Your task to perform on an android device: open device folders in google photos Image 0: 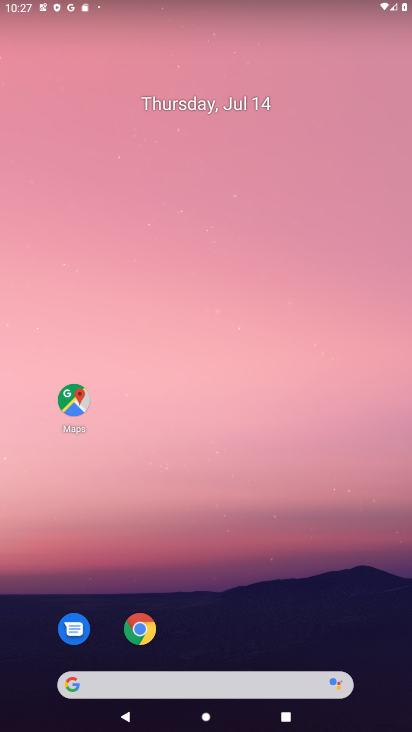
Step 0: drag from (33, 640) to (251, 127)
Your task to perform on an android device: open device folders in google photos Image 1: 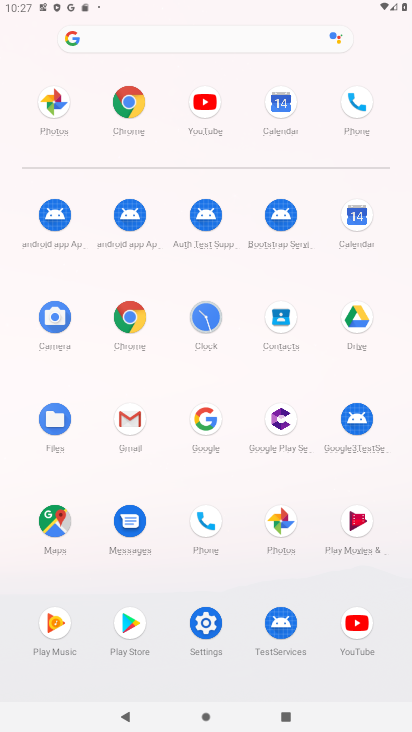
Step 1: click (277, 522)
Your task to perform on an android device: open device folders in google photos Image 2: 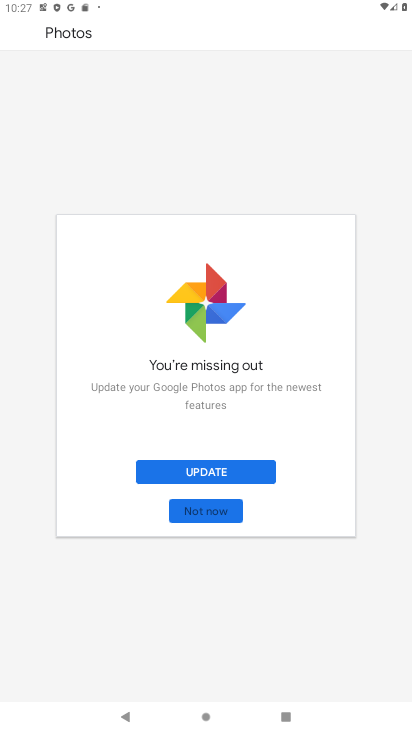
Step 2: click (176, 518)
Your task to perform on an android device: open device folders in google photos Image 3: 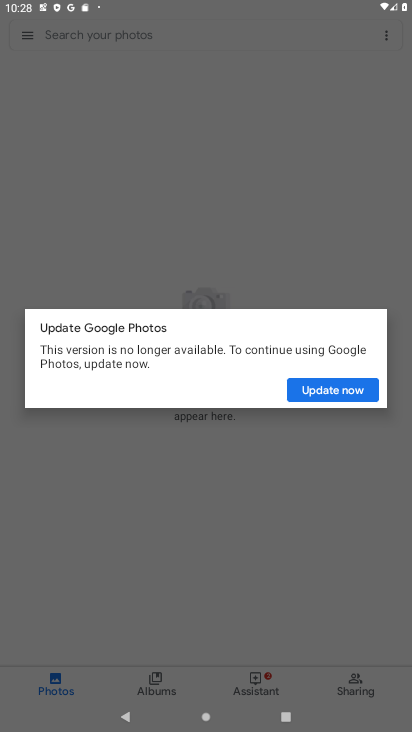
Step 3: click (349, 391)
Your task to perform on an android device: open device folders in google photos Image 4: 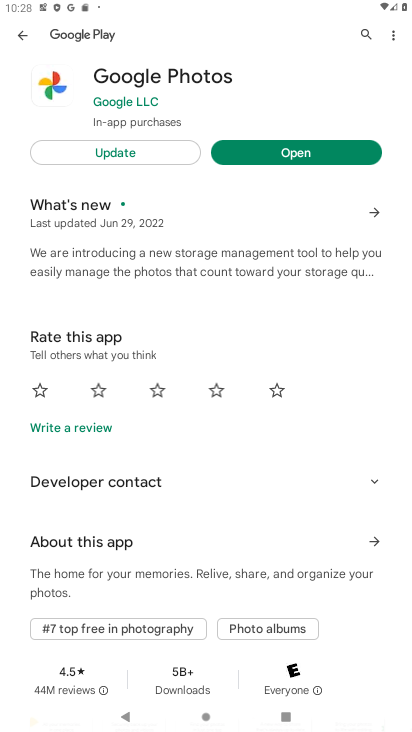
Step 4: click (248, 153)
Your task to perform on an android device: open device folders in google photos Image 5: 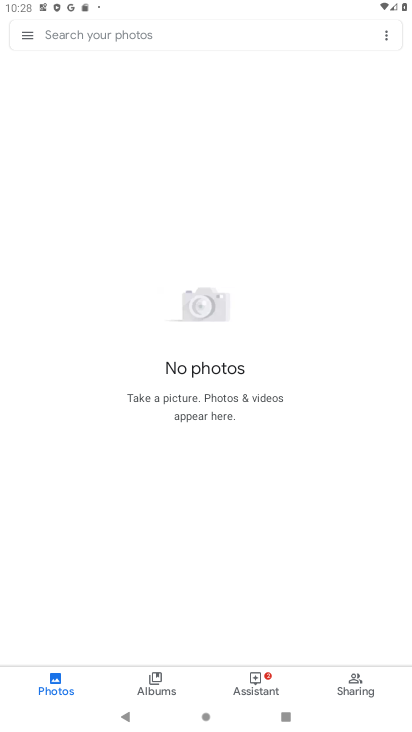
Step 5: click (247, 680)
Your task to perform on an android device: open device folders in google photos Image 6: 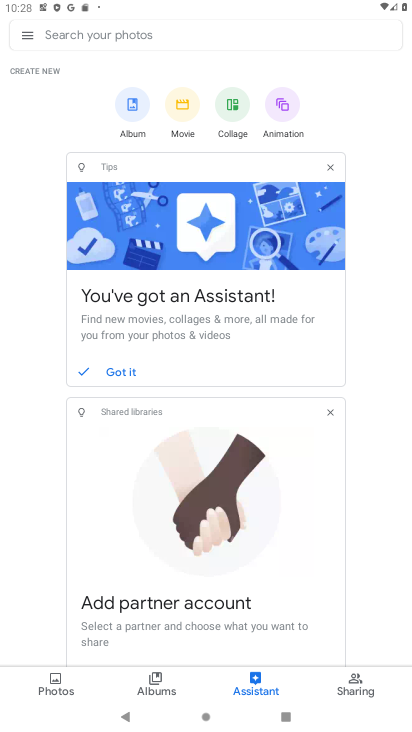
Step 6: click (21, 35)
Your task to perform on an android device: open device folders in google photos Image 7: 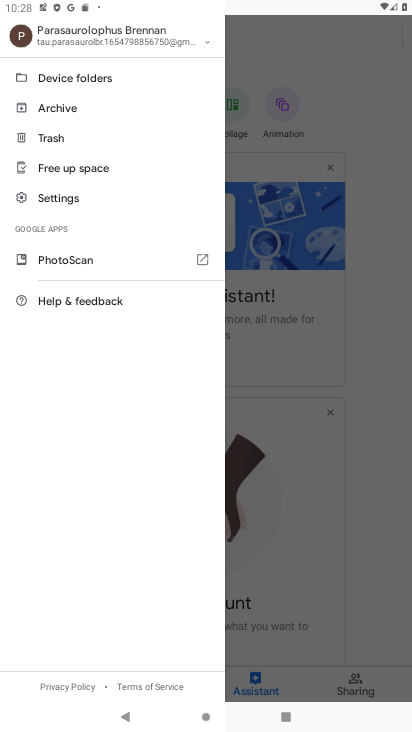
Step 7: click (80, 73)
Your task to perform on an android device: open device folders in google photos Image 8: 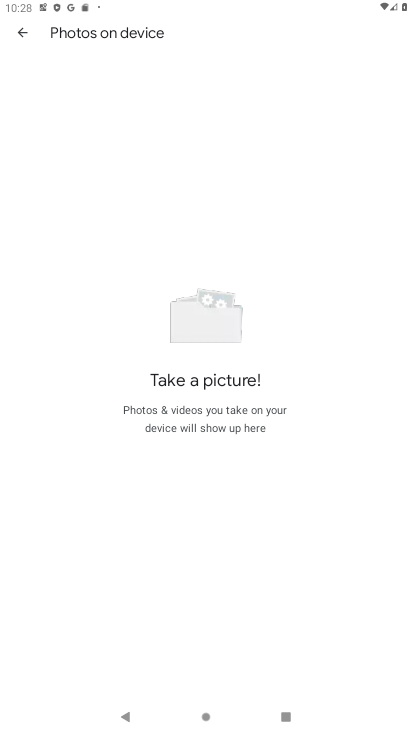
Step 8: task complete